Your task to perform on an android device: toggle improve location accuracy Image 0: 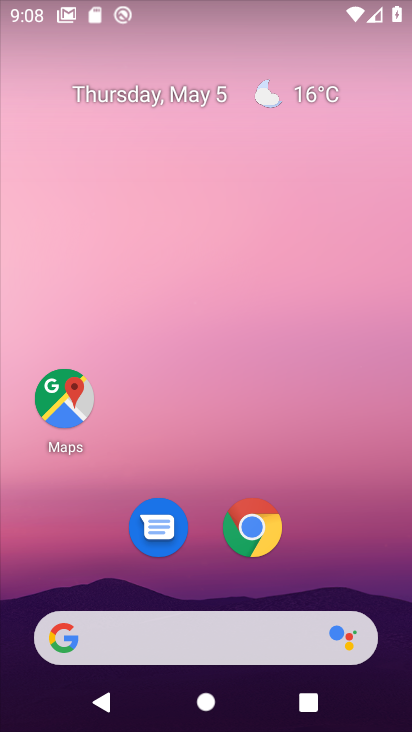
Step 0: drag from (89, 591) to (195, 24)
Your task to perform on an android device: toggle improve location accuracy Image 1: 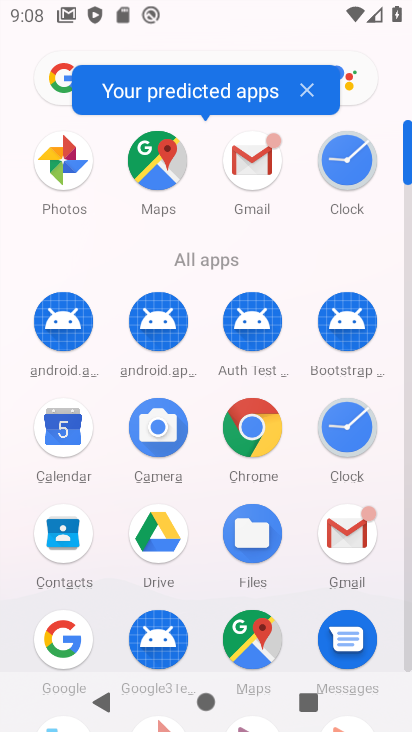
Step 1: drag from (157, 591) to (231, 260)
Your task to perform on an android device: toggle improve location accuracy Image 2: 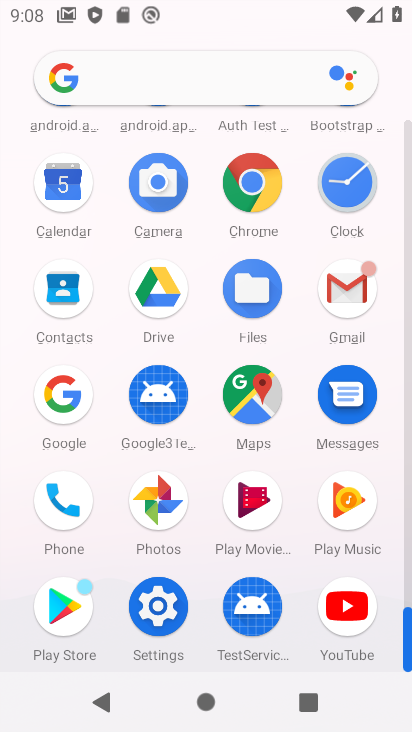
Step 2: click (152, 597)
Your task to perform on an android device: toggle improve location accuracy Image 3: 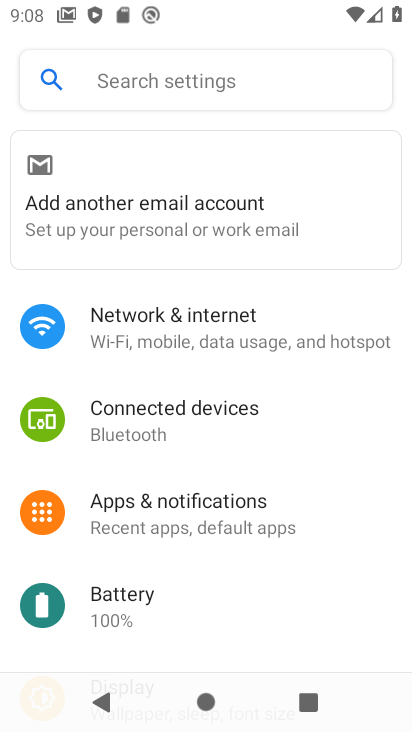
Step 3: drag from (194, 604) to (256, 197)
Your task to perform on an android device: toggle improve location accuracy Image 4: 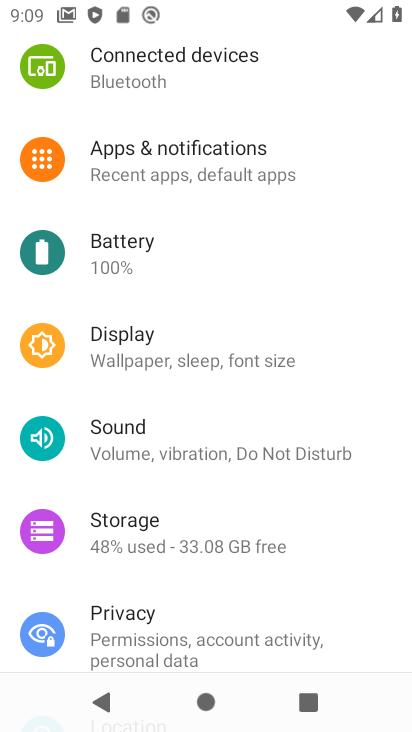
Step 4: drag from (169, 586) to (238, 205)
Your task to perform on an android device: toggle improve location accuracy Image 5: 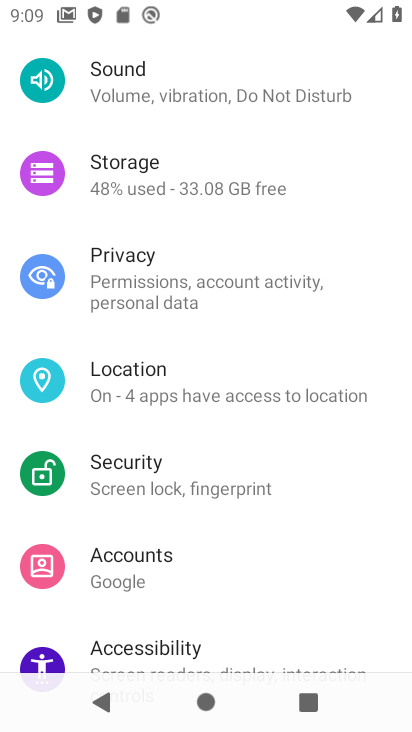
Step 5: click (158, 379)
Your task to perform on an android device: toggle improve location accuracy Image 6: 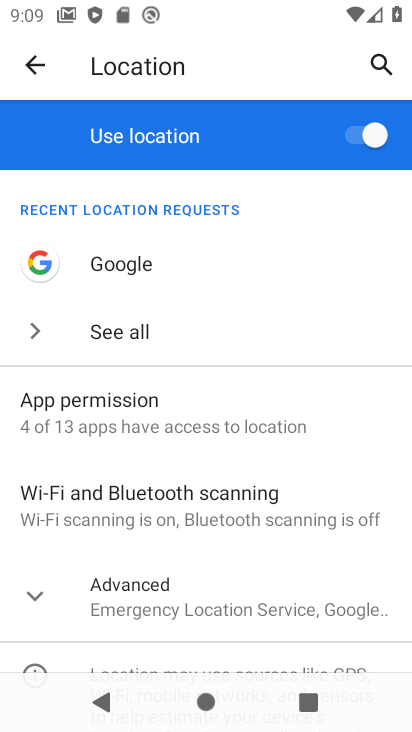
Step 6: click (147, 614)
Your task to perform on an android device: toggle improve location accuracy Image 7: 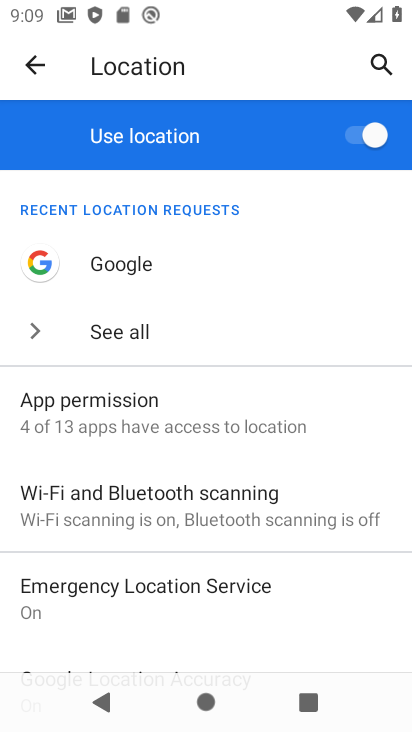
Step 7: drag from (238, 666) to (299, 328)
Your task to perform on an android device: toggle improve location accuracy Image 8: 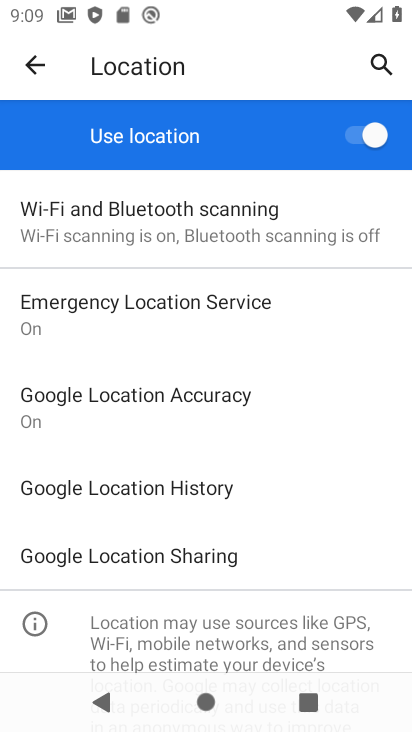
Step 8: click (214, 405)
Your task to perform on an android device: toggle improve location accuracy Image 9: 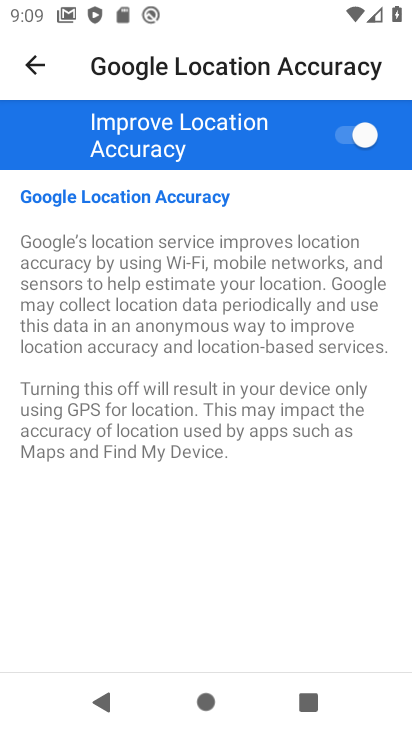
Step 9: click (334, 133)
Your task to perform on an android device: toggle improve location accuracy Image 10: 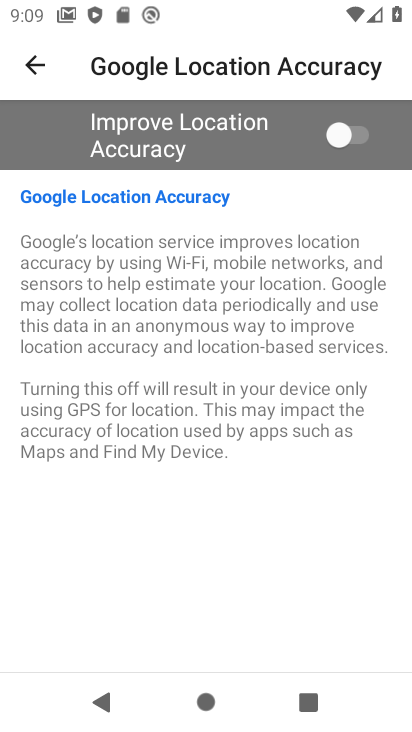
Step 10: task complete